Your task to perform on an android device: install app "eBay: The shopping marketplace" Image 0: 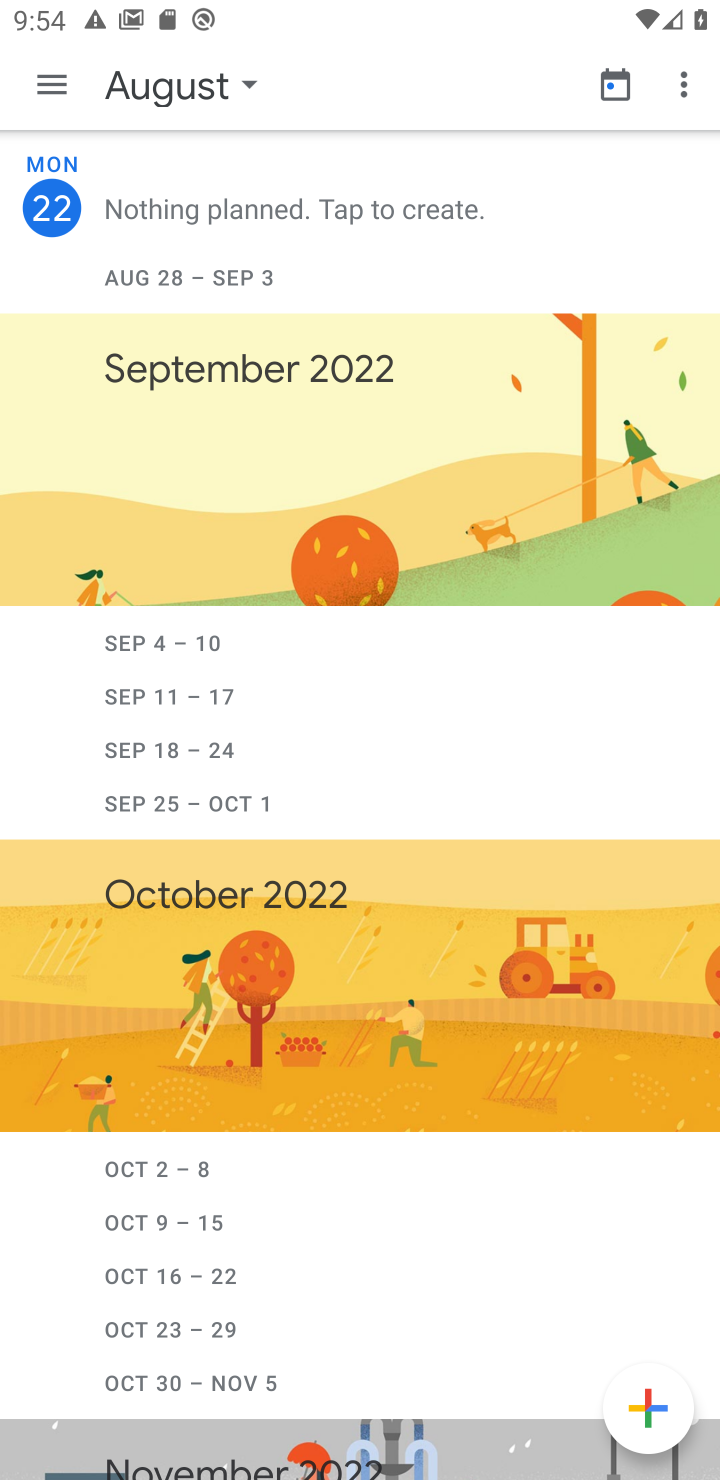
Step 0: press home button
Your task to perform on an android device: install app "eBay: The shopping marketplace" Image 1: 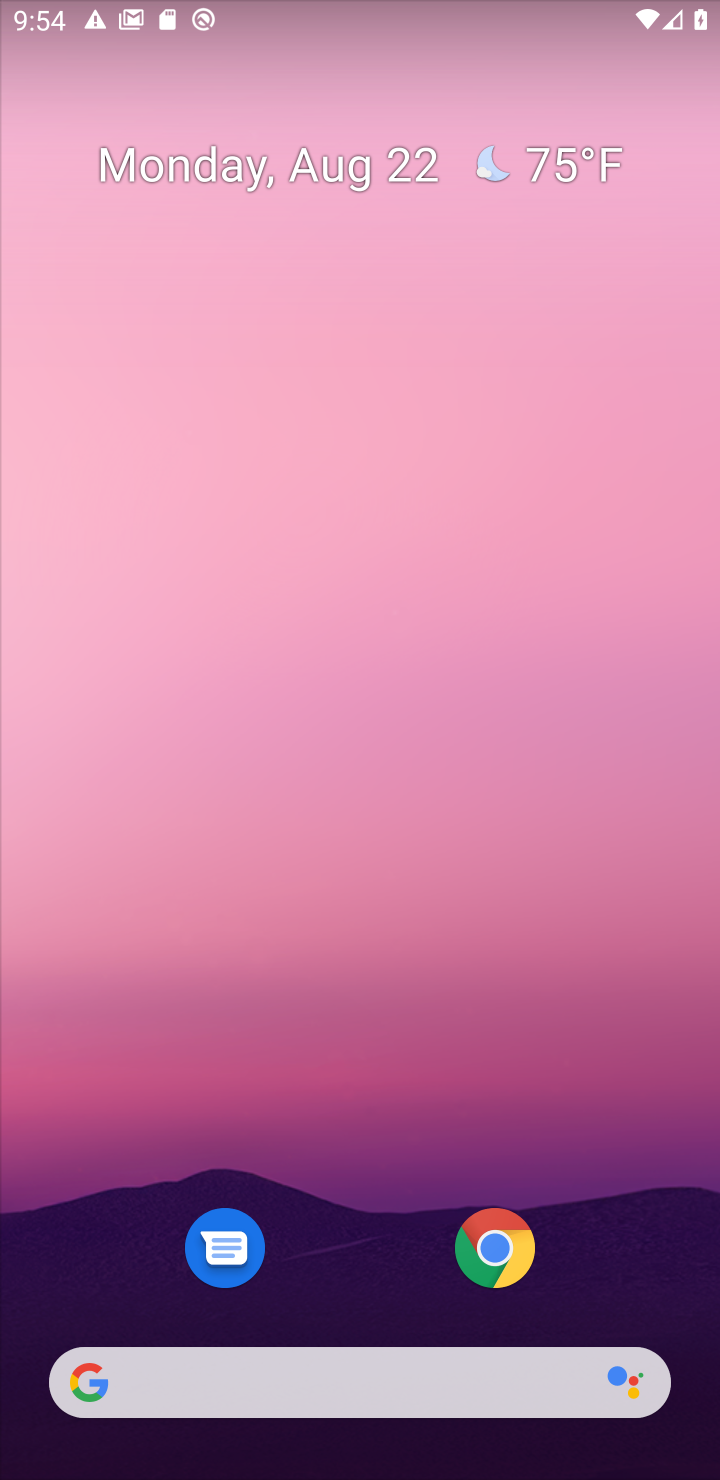
Step 1: drag from (347, 1229) to (364, 142)
Your task to perform on an android device: install app "eBay: The shopping marketplace" Image 2: 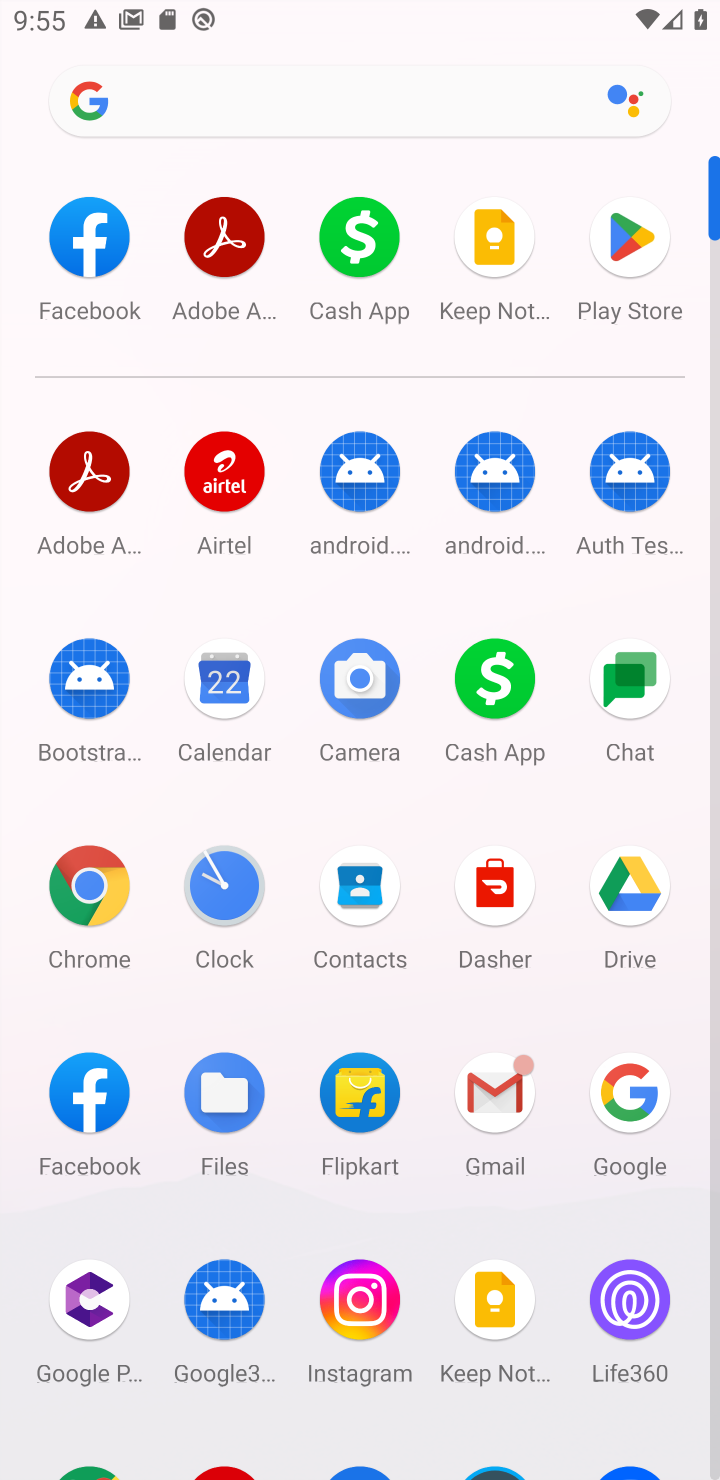
Step 2: click (625, 247)
Your task to perform on an android device: install app "eBay: The shopping marketplace" Image 3: 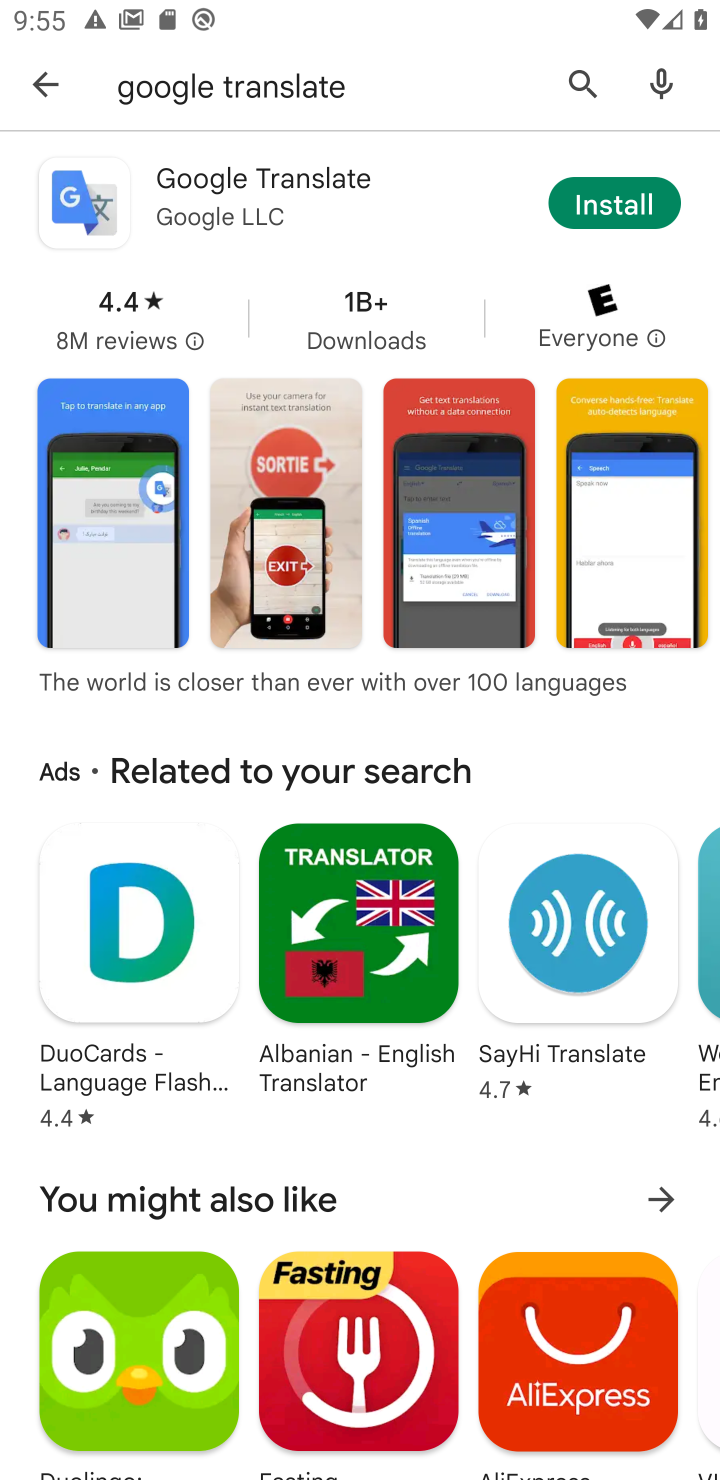
Step 3: click (577, 78)
Your task to perform on an android device: install app "eBay: The shopping marketplace" Image 4: 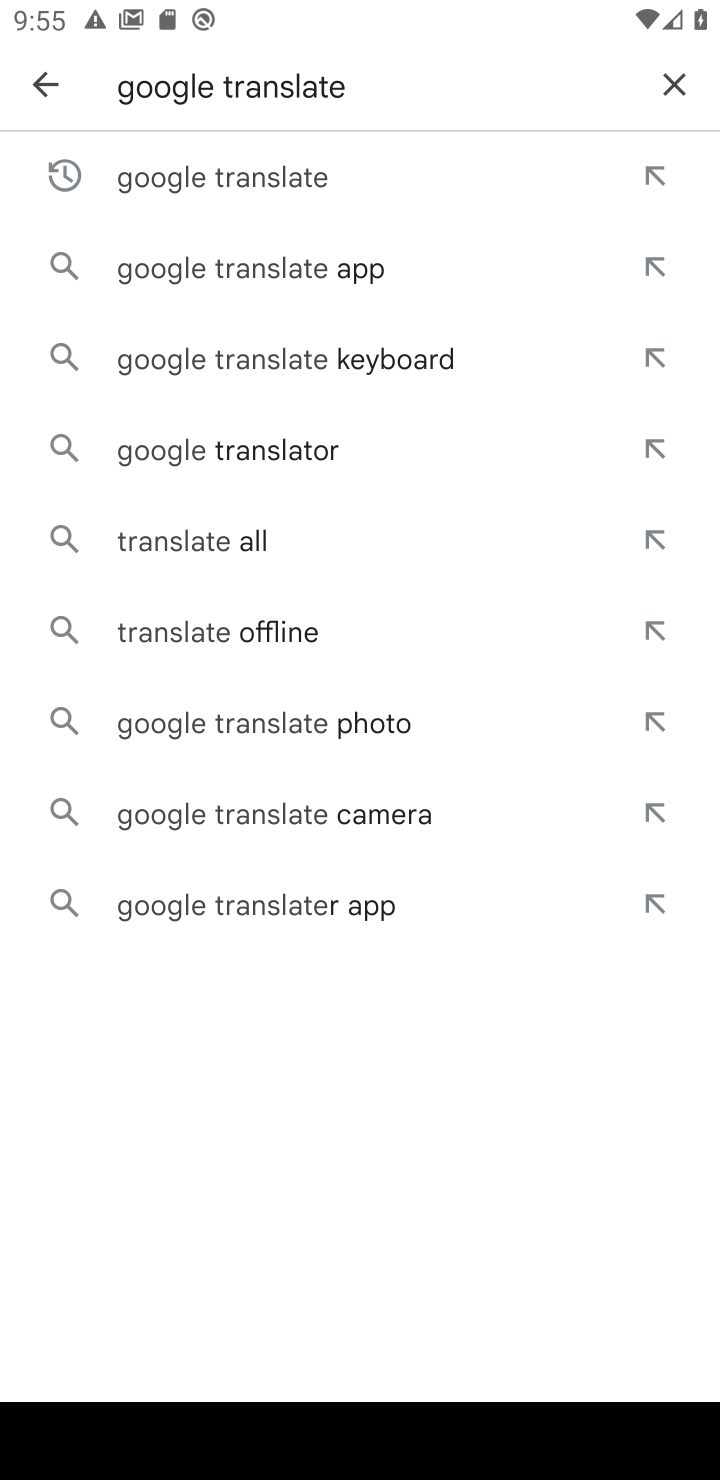
Step 4: click (667, 79)
Your task to perform on an android device: install app "eBay: The shopping marketplace" Image 5: 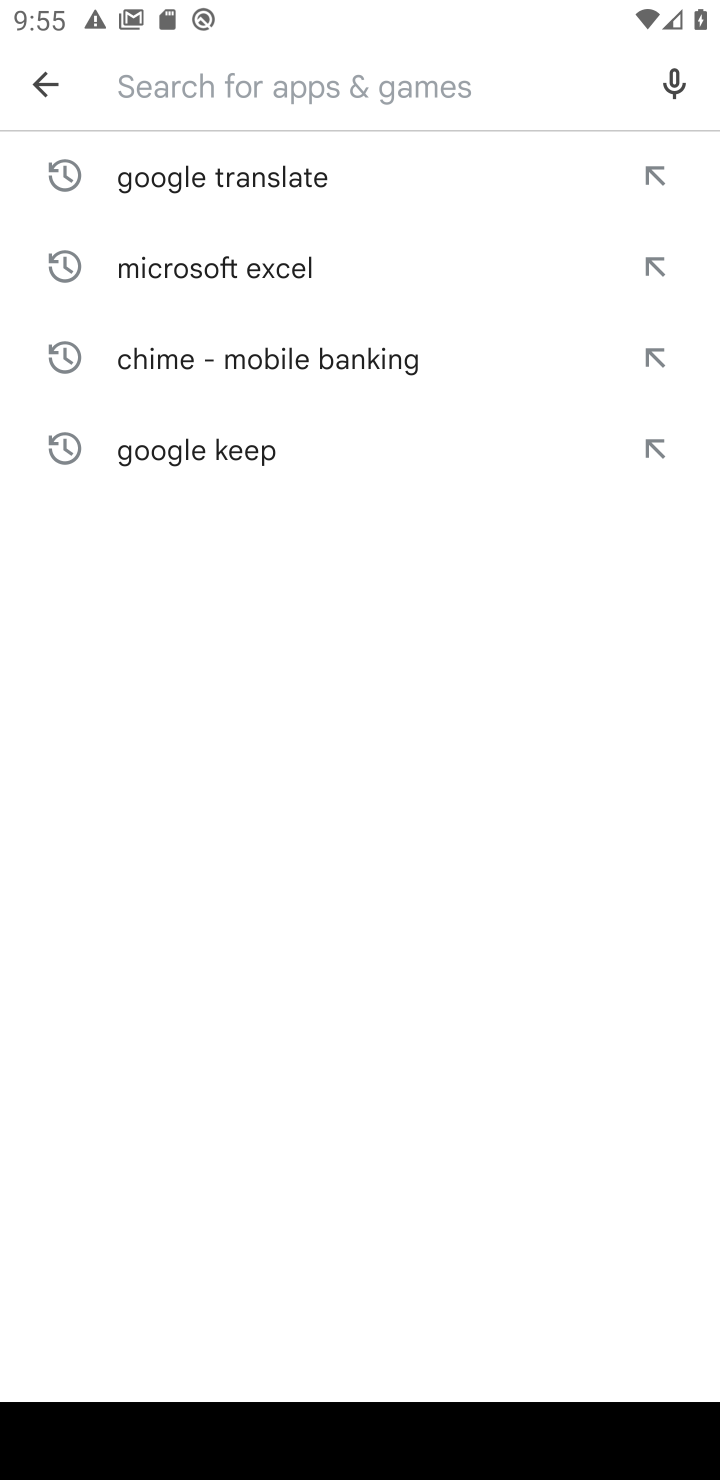
Step 5: type "eBay: The shopping marketplace"
Your task to perform on an android device: install app "eBay: The shopping marketplace" Image 6: 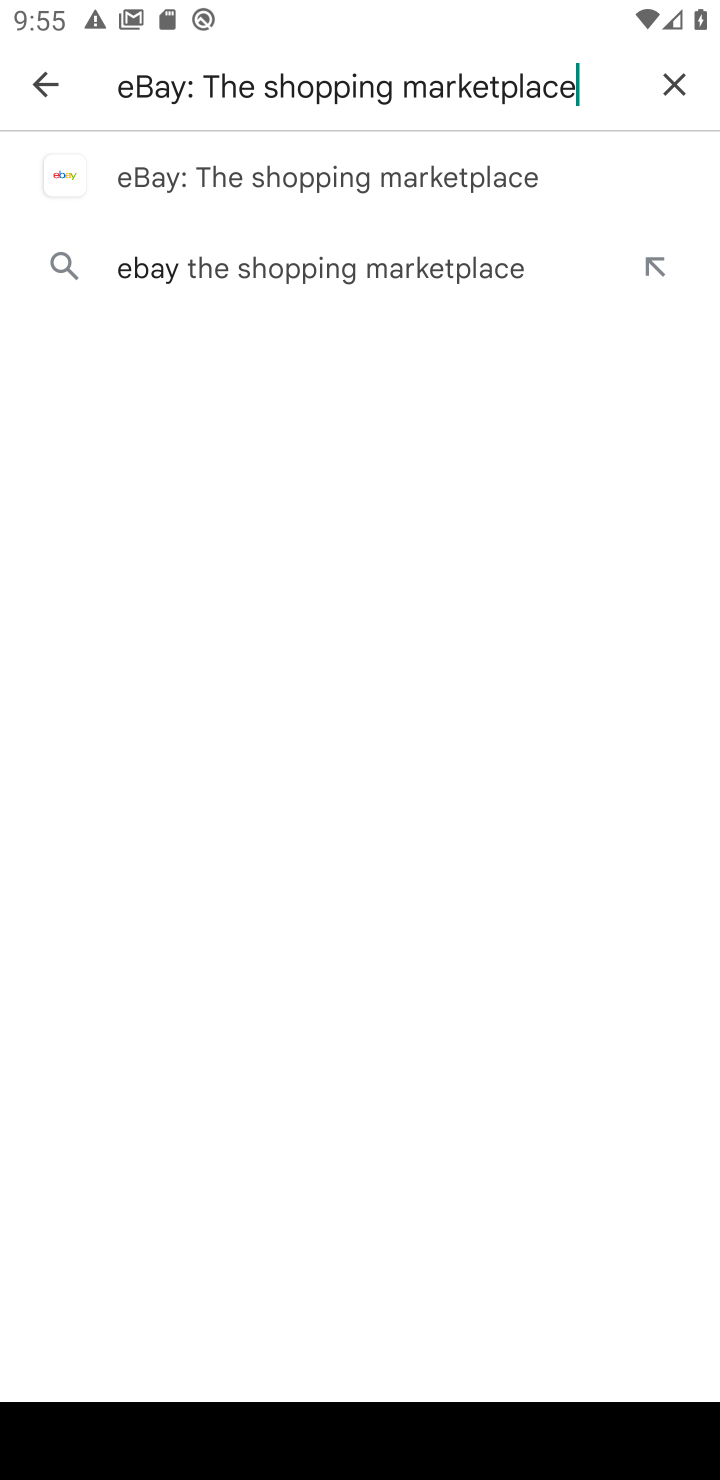
Step 6: click (485, 170)
Your task to perform on an android device: install app "eBay: The shopping marketplace" Image 7: 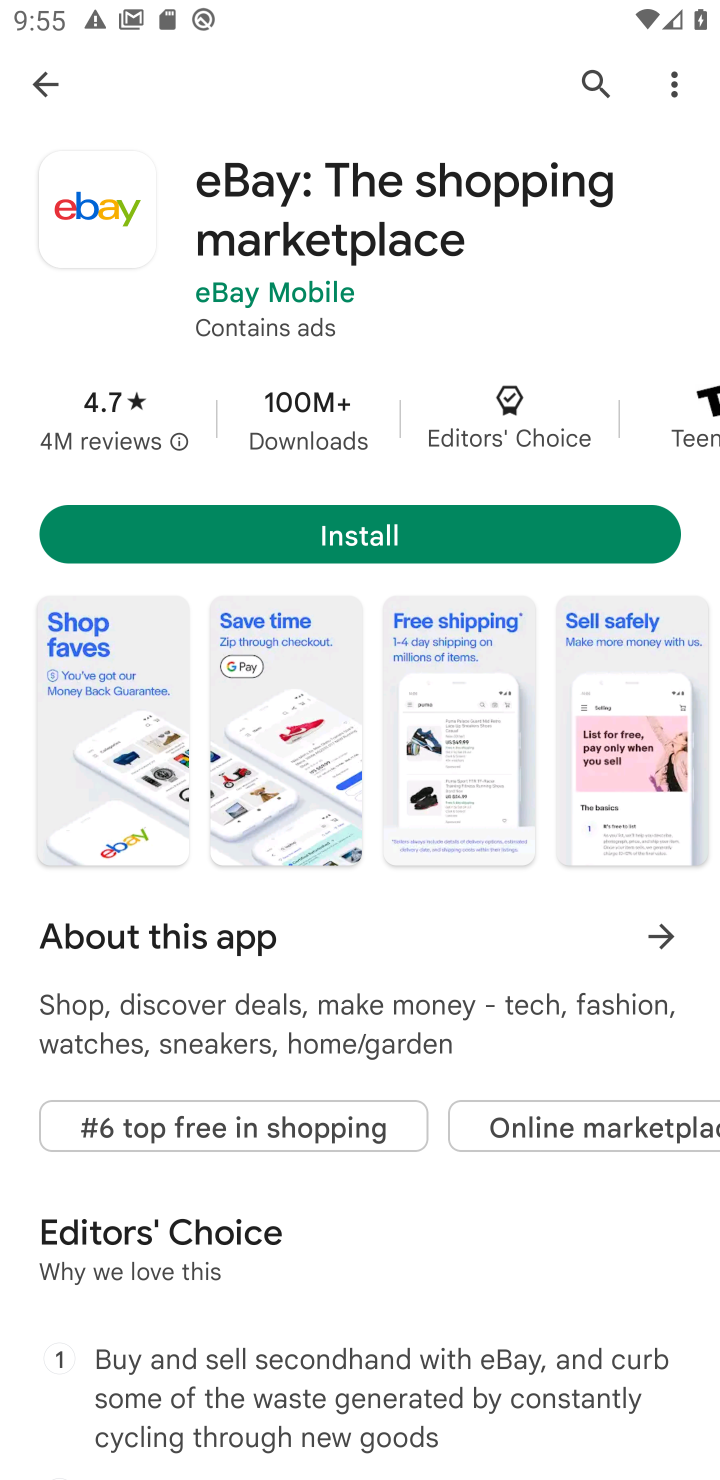
Step 7: click (389, 552)
Your task to perform on an android device: install app "eBay: The shopping marketplace" Image 8: 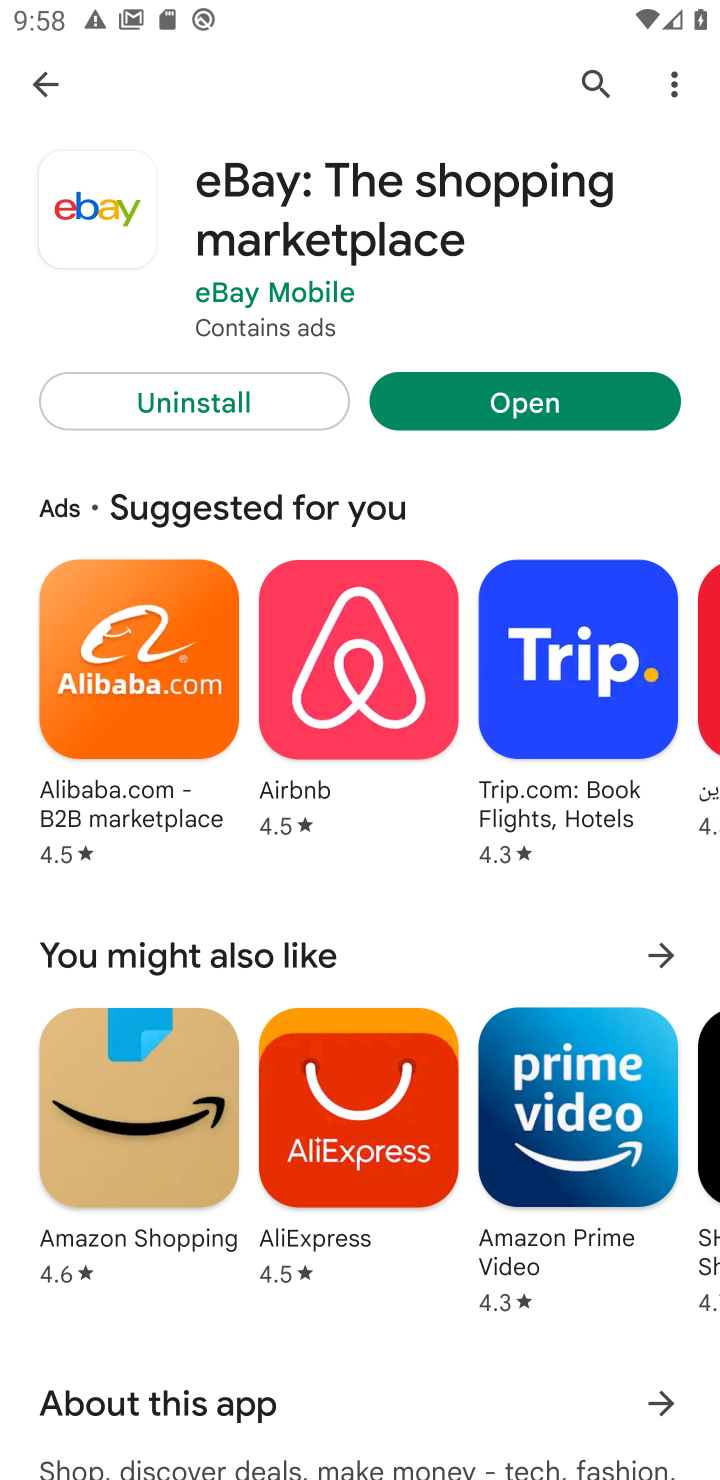
Step 8: task complete